Your task to perform on an android device: turn off javascript in the chrome app Image 0: 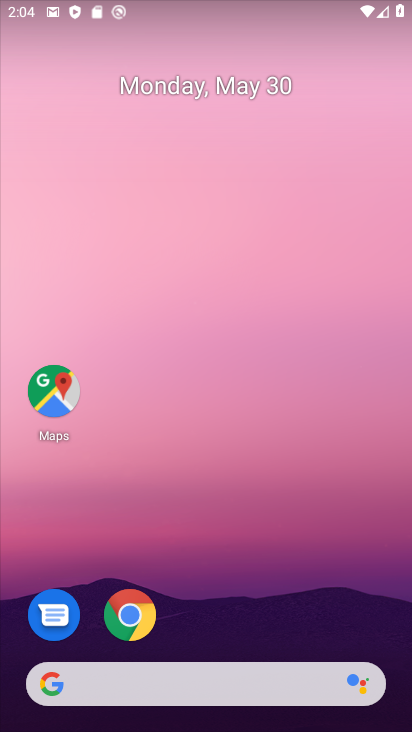
Step 0: click (133, 633)
Your task to perform on an android device: turn off javascript in the chrome app Image 1: 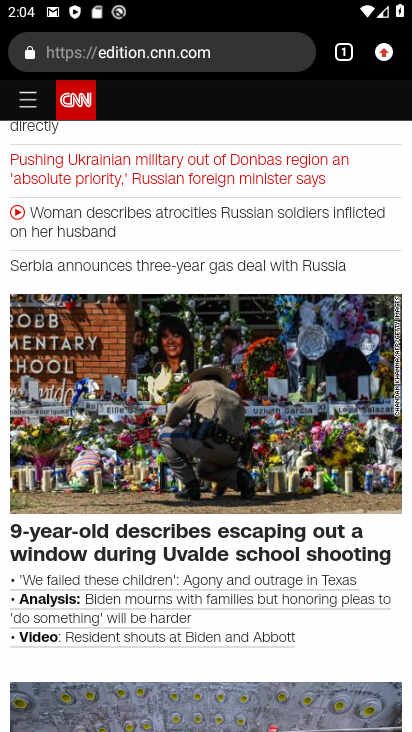
Step 1: click (379, 46)
Your task to perform on an android device: turn off javascript in the chrome app Image 2: 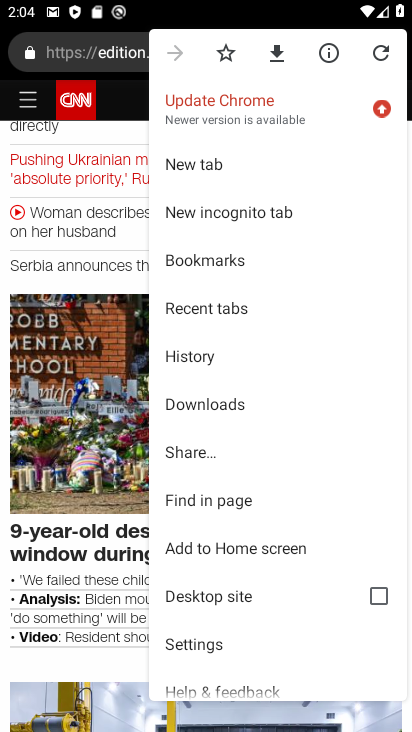
Step 2: click (214, 632)
Your task to perform on an android device: turn off javascript in the chrome app Image 3: 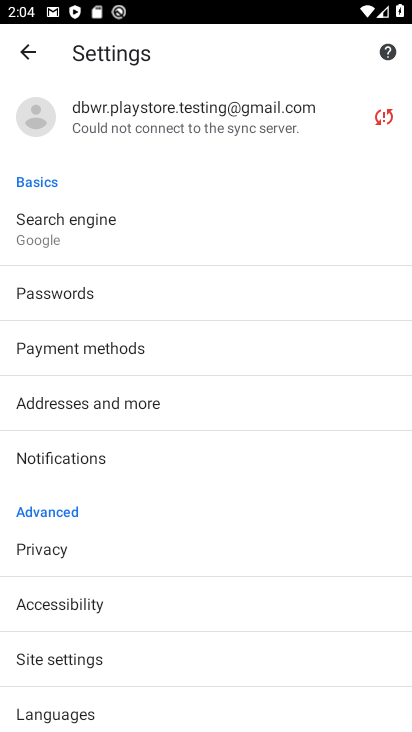
Step 3: click (214, 636)
Your task to perform on an android device: turn off javascript in the chrome app Image 4: 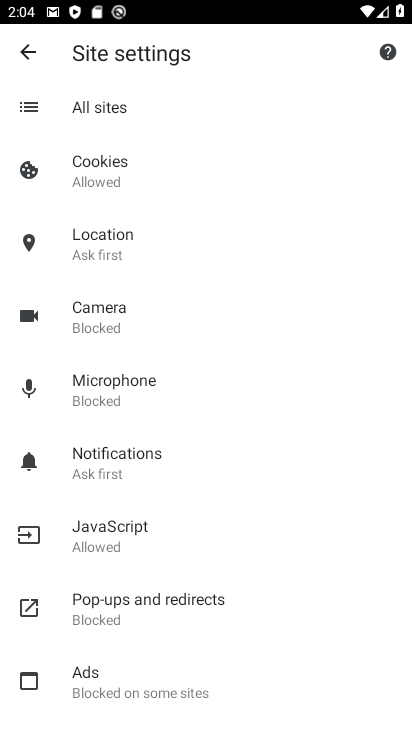
Step 4: click (180, 524)
Your task to perform on an android device: turn off javascript in the chrome app Image 5: 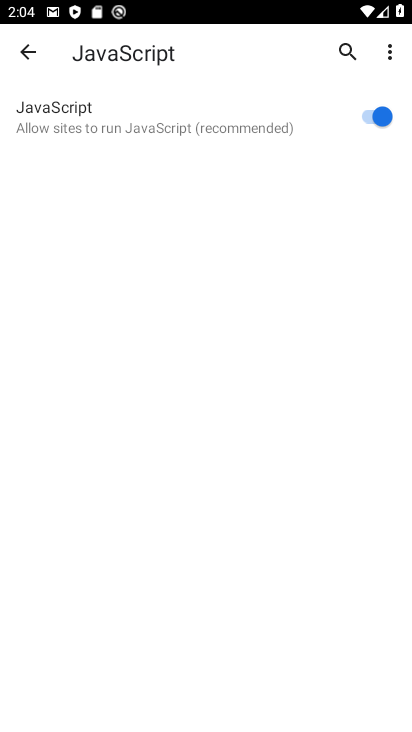
Step 5: click (375, 109)
Your task to perform on an android device: turn off javascript in the chrome app Image 6: 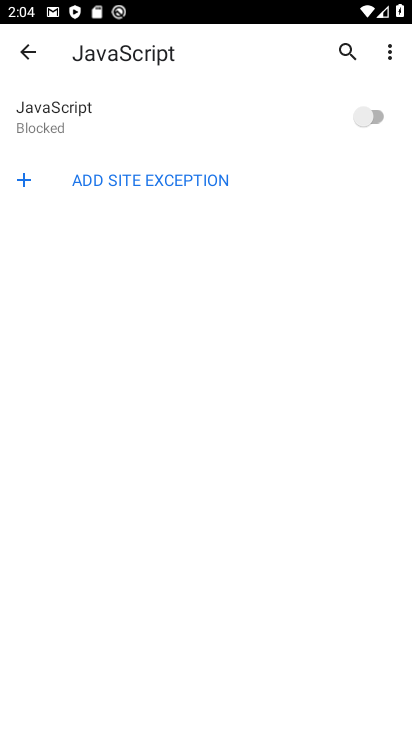
Step 6: task complete